Your task to perform on an android device: check android version Image 0: 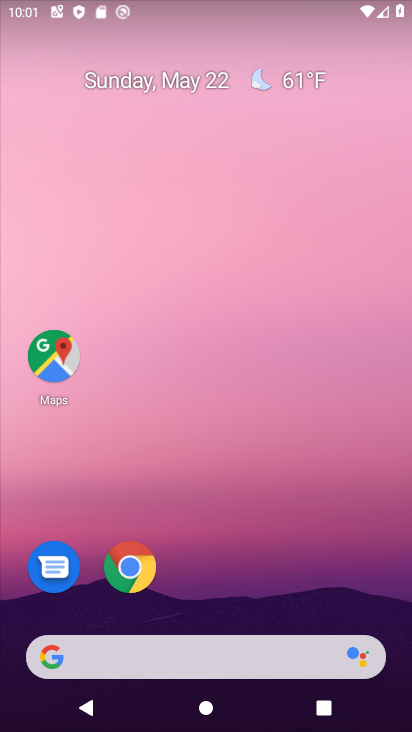
Step 0: drag from (203, 636) to (167, 12)
Your task to perform on an android device: check android version Image 1: 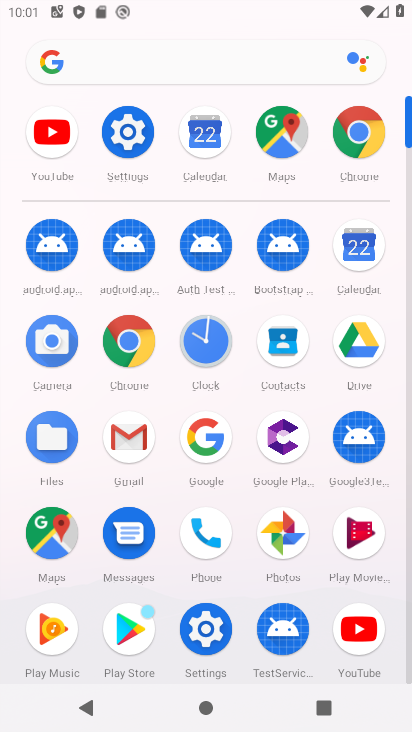
Step 1: click (107, 138)
Your task to perform on an android device: check android version Image 2: 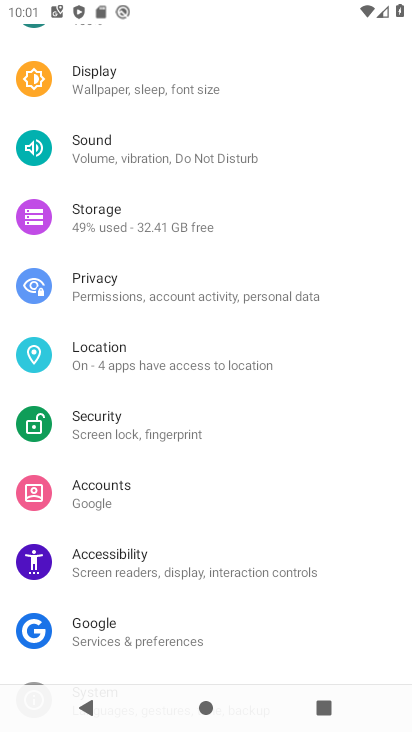
Step 2: drag from (132, 636) to (61, 111)
Your task to perform on an android device: check android version Image 3: 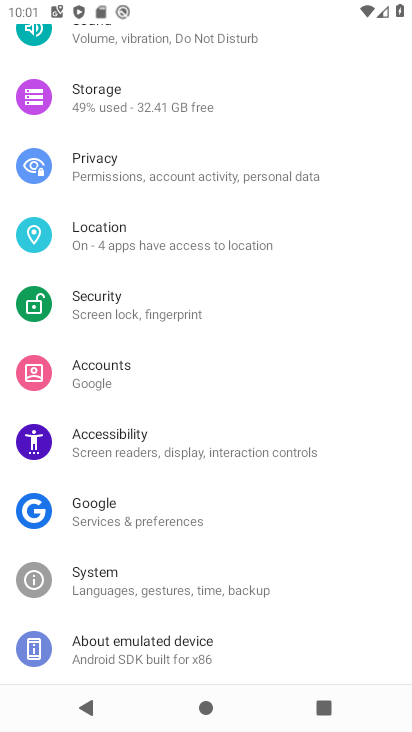
Step 3: click (152, 656)
Your task to perform on an android device: check android version Image 4: 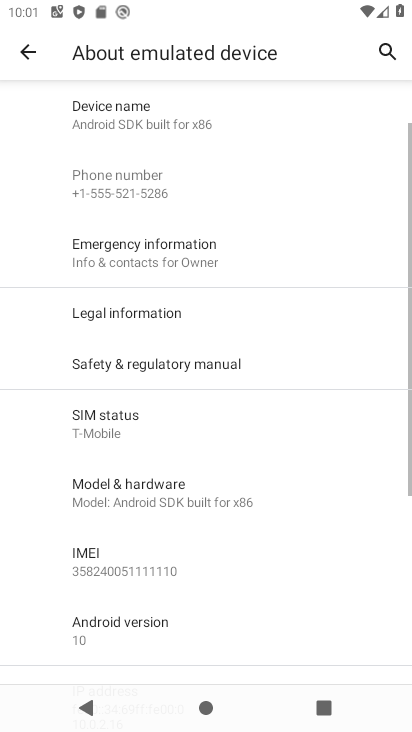
Step 4: drag from (148, 655) to (75, 281)
Your task to perform on an android device: check android version Image 5: 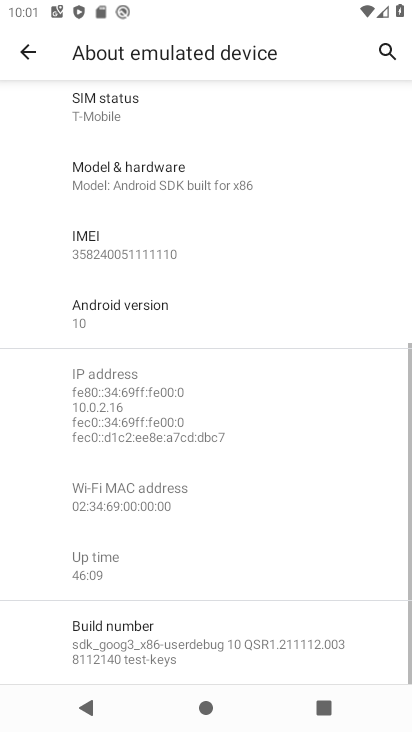
Step 5: click (81, 311)
Your task to perform on an android device: check android version Image 6: 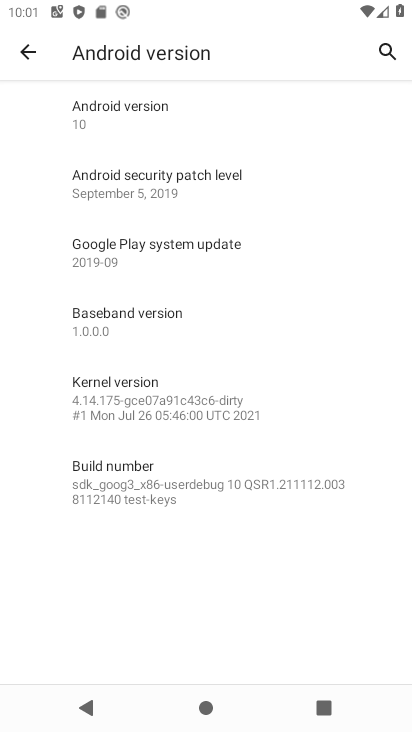
Step 6: click (111, 128)
Your task to perform on an android device: check android version Image 7: 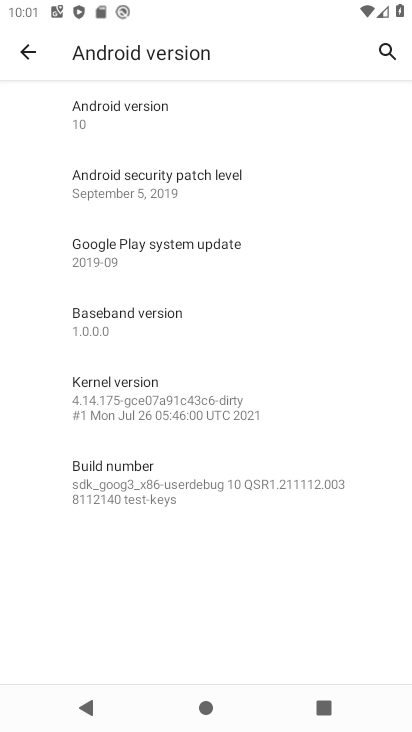
Step 7: task complete